Your task to perform on an android device: Clear the shopping cart on newegg. Add bose quietcomfort 35 to the cart on newegg, then select checkout. Image 0: 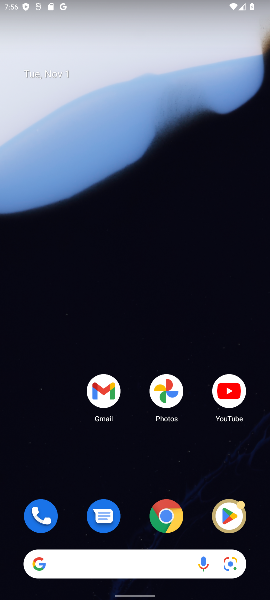
Step 0: drag from (120, 482) to (169, 37)
Your task to perform on an android device: Clear the shopping cart on newegg. Add bose quietcomfort 35 to the cart on newegg, then select checkout. Image 1: 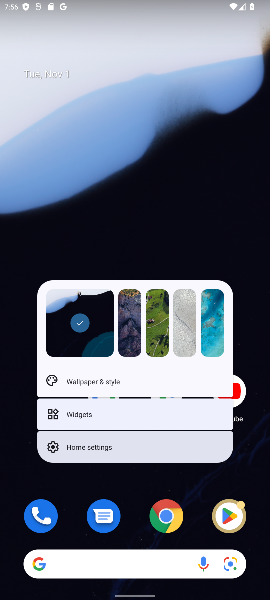
Step 1: click (117, 187)
Your task to perform on an android device: Clear the shopping cart on newegg. Add bose quietcomfort 35 to the cart on newegg, then select checkout. Image 2: 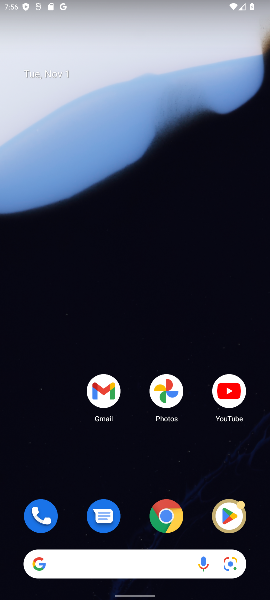
Step 2: drag from (137, 467) to (150, 2)
Your task to perform on an android device: Clear the shopping cart on newegg. Add bose quietcomfort 35 to the cart on newegg, then select checkout. Image 3: 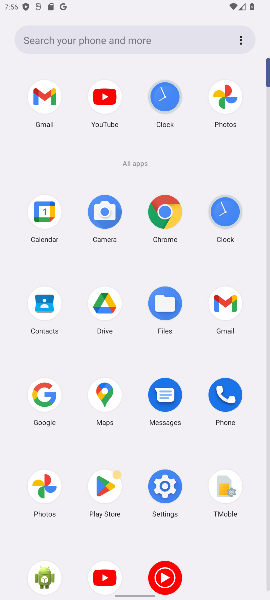
Step 3: click (169, 209)
Your task to perform on an android device: Clear the shopping cart on newegg. Add bose quietcomfort 35 to the cart on newegg, then select checkout. Image 4: 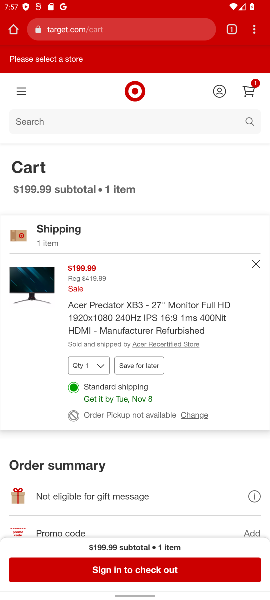
Step 4: click (85, 23)
Your task to perform on an android device: Clear the shopping cart on newegg. Add bose quietcomfort 35 to the cart on newegg, then select checkout. Image 5: 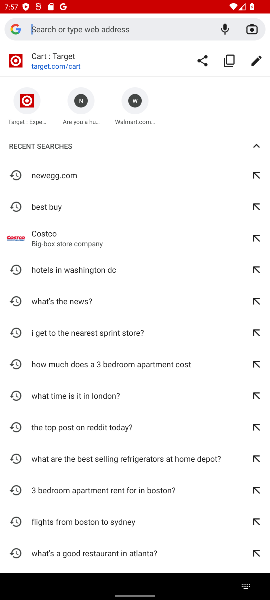
Step 5: type "newegg"
Your task to perform on an android device: Clear the shopping cart on newegg. Add bose quietcomfort 35 to the cart on newegg, then select checkout. Image 6: 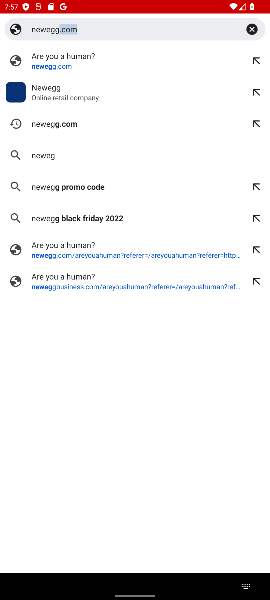
Step 6: type ""
Your task to perform on an android device: Clear the shopping cart on newegg. Add bose quietcomfort 35 to the cart on newegg, then select checkout. Image 7: 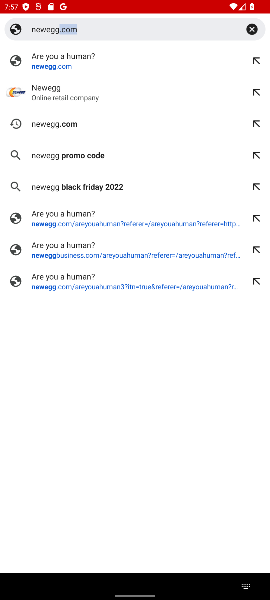
Step 7: click (65, 122)
Your task to perform on an android device: Clear the shopping cart on newegg. Add bose quietcomfort 35 to the cart on newegg, then select checkout. Image 8: 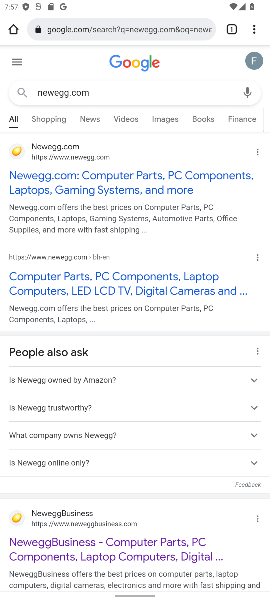
Step 8: click (91, 178)
Your task to perform on an android device: Clear the shopping cart on newegg. Add bose quietcomfort 35 to the cart on newegg, then select checkout. Image 9: 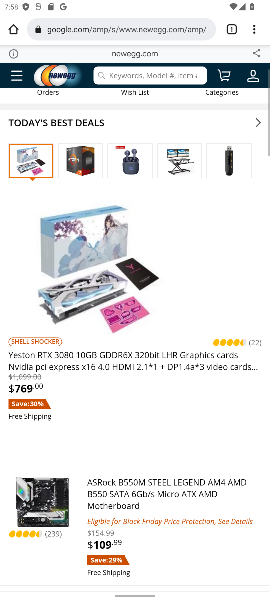
Step 9: click (127, 72)
Your task to perform on an android device: Clear the shopping cart on newegg. Add bose quietcomfort 35 to the cart on newegg, then select checkout. Image 10: 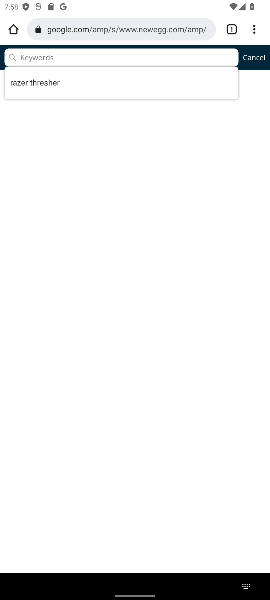
Step 10: click (27, 52)
Your task to perform on an android device: Clear the shopping cart on newegg. Add bose quietcomfort 35 to the cart on newegg, then select checkout. Image 11: 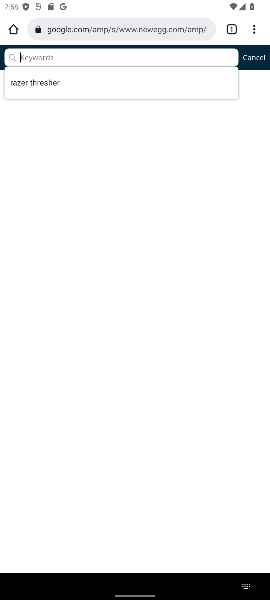
Step 11: type "bose quietcomfort 35"
Your task to perform on an android device: Clear the shopping cart on newegg. Add bose quietcomfort 35 to the cart on newegg, then select checkout. Image 12: 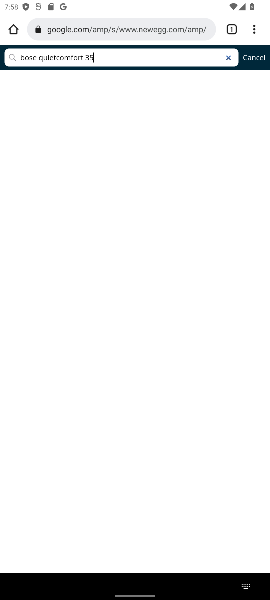
Step 12: task complete